Your task to perform on an android device: turn off location history Image 0: 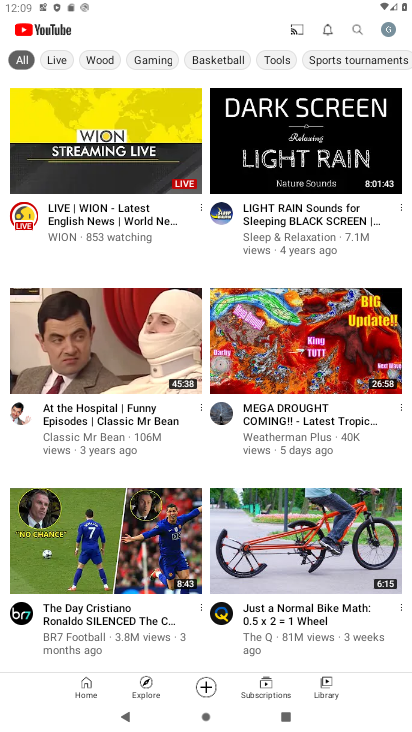
Step 0: press home button
Your task to perform on an android device: turn off location history Image 1: 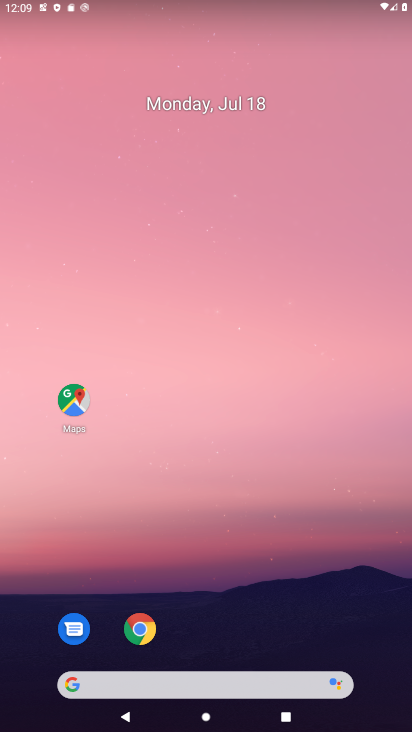
Step 1: drag from (217, 654) to (247, 80)
Your task to perform on an android device: turn off location history Image 2: 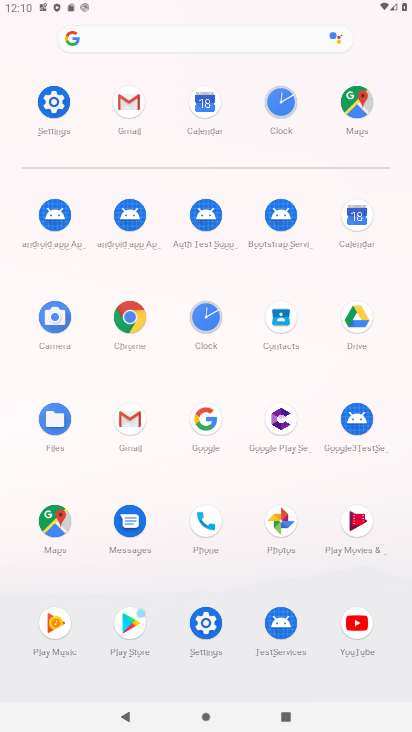
Step 2: click (50, 97)
Your task to perform on an android device: turn off location history Image 3: 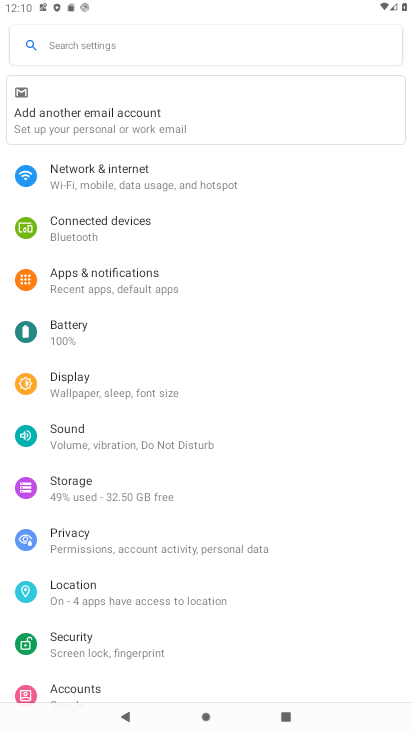
Step 3: click (118, 589)
Your task to perform on an android device: turn off location history Image 4: 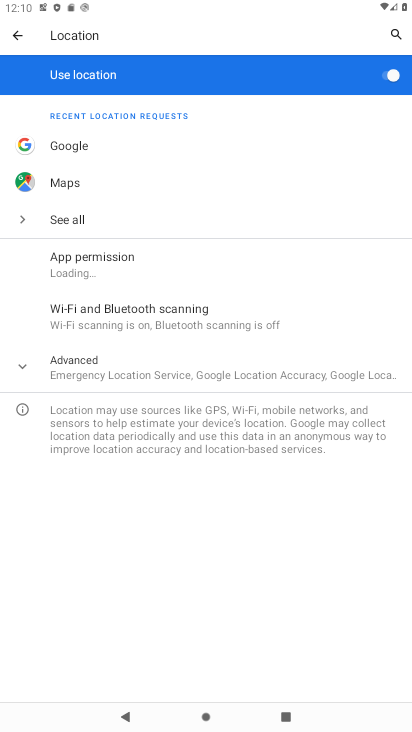
Step 4: click (25, 368)
Your task to perform on an android device: turn off location history Image 5: 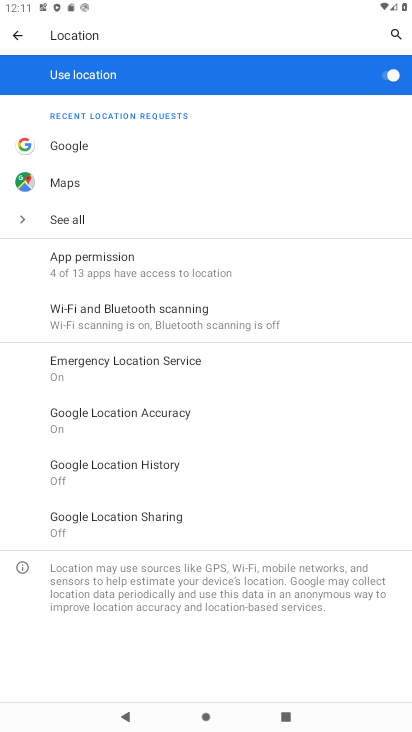
Step 5: click (85, 471)
Your task to perform on an android device: turn off location history Image 6: 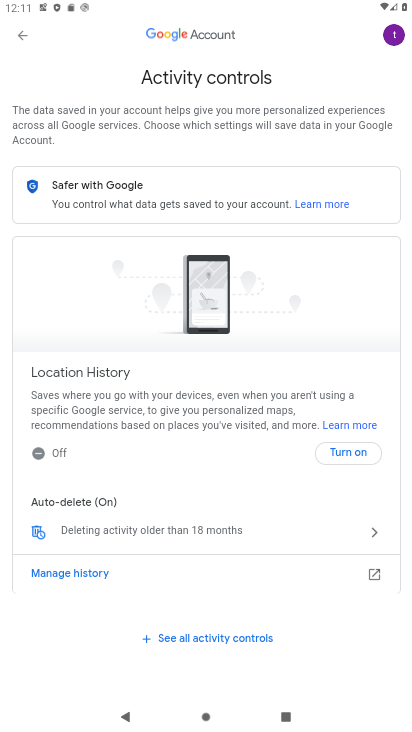
Step 6: task complete